Your task to perform on an android device: add a contact Image 0: 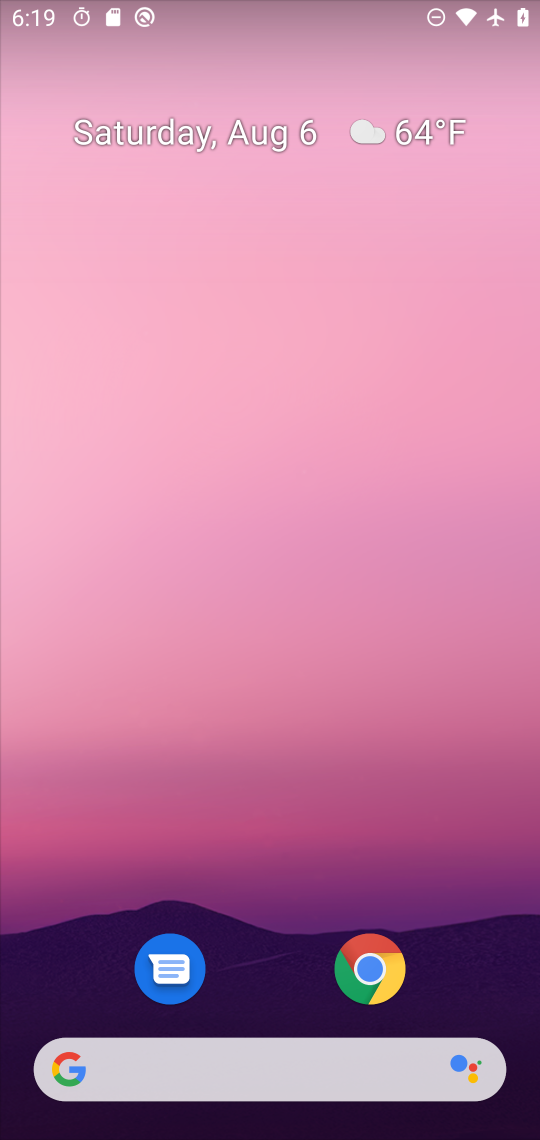
Step 0: drag from (267, 1010) to (293, 279)
Your task to perform on an android device: add a contact Image 1: 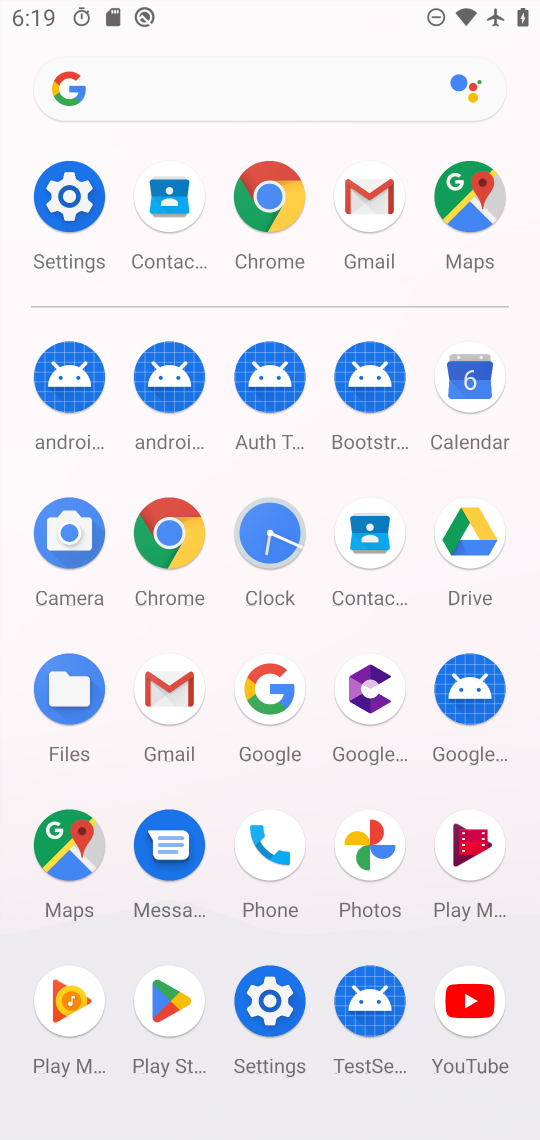
Step 1: click (371, 536)
Your task to perform on an android device: add a contact Image 2: 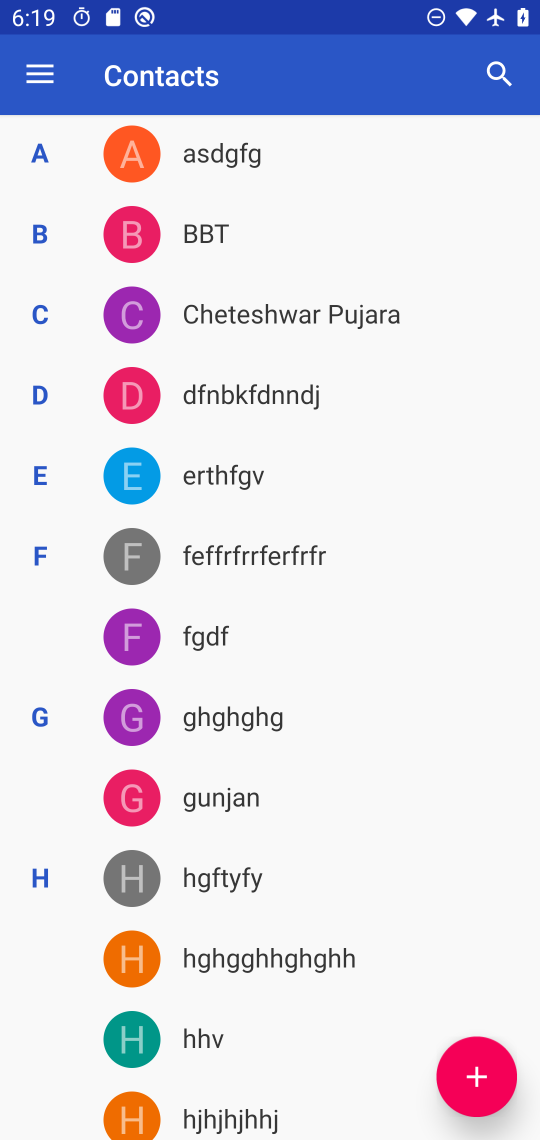
Step 2: click (478, 1072)
Your task to perform on an android device: add a contact Image 3: 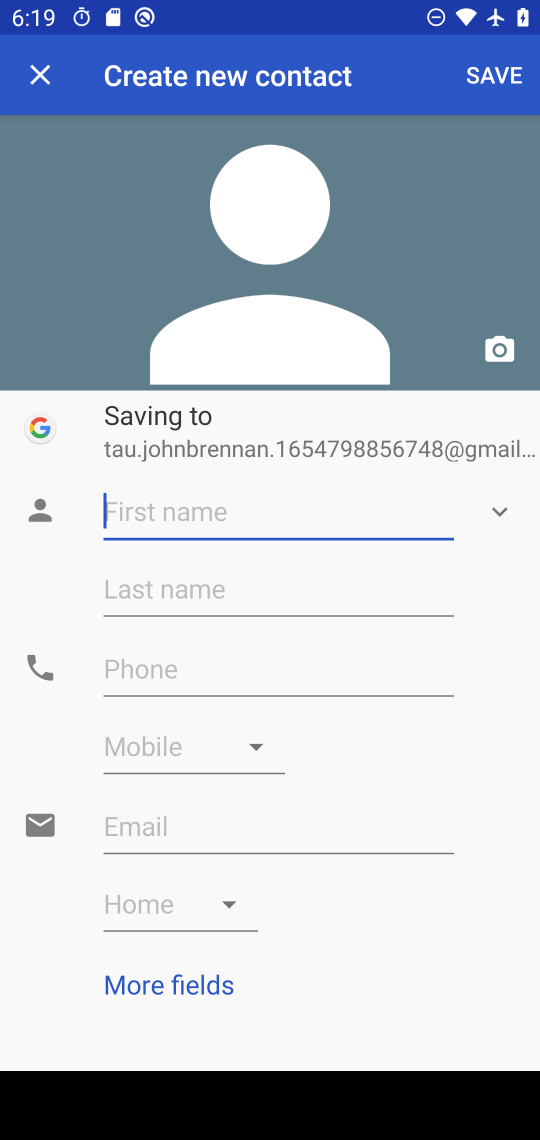
Step 3: type "ghghg"
Your task to perform on an android device: add a contact Image 4: 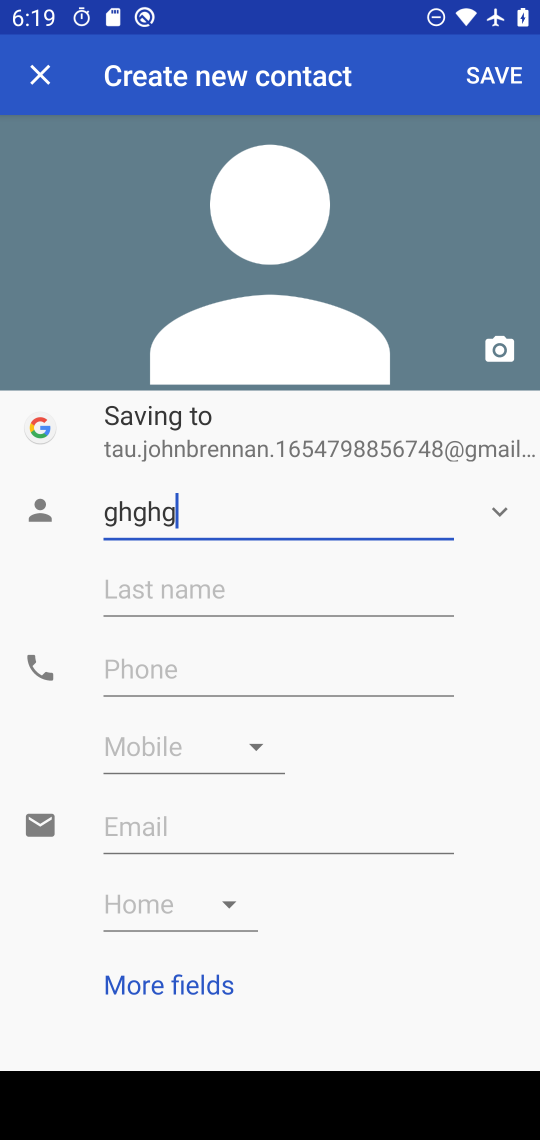
Step 4: click (270, 677)
Your task to perform on an android device: add a contact Image 5: 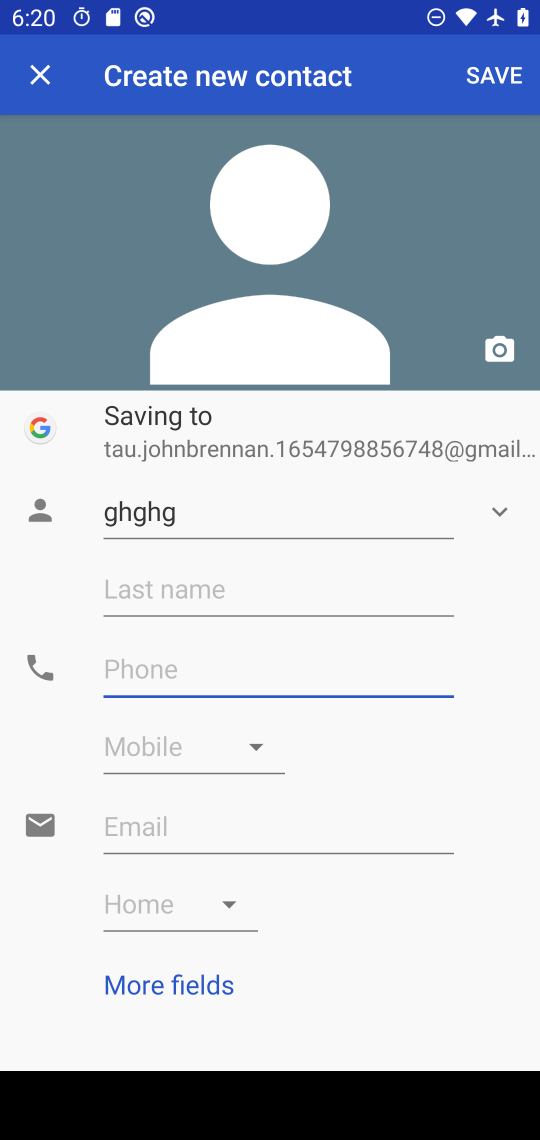
Step 5: type "565656"
Your task to perform on an android device: add a contact Image 6: 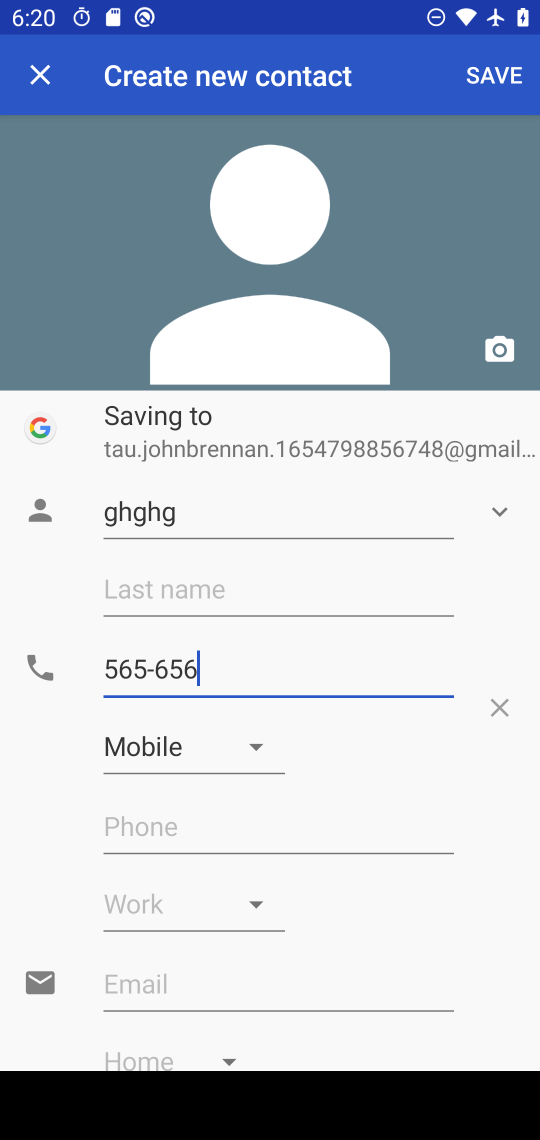
Step 6: click (501, 74)
Your task to perform on an android device: add a contact Image 7: 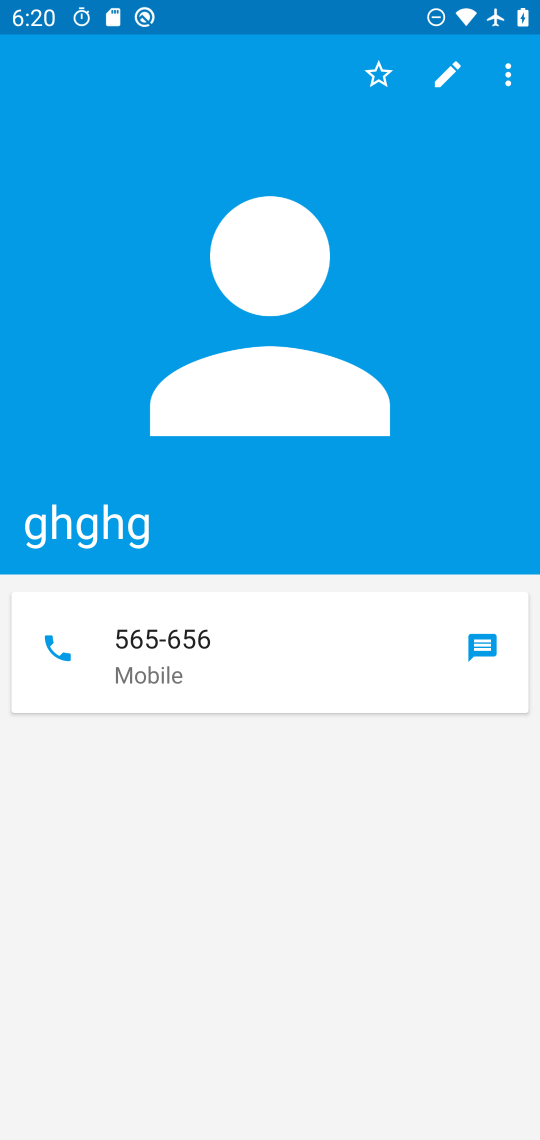
Step 7: task complete